Your task to perform on an android device: toggle pop-ups in chrome Image 0: 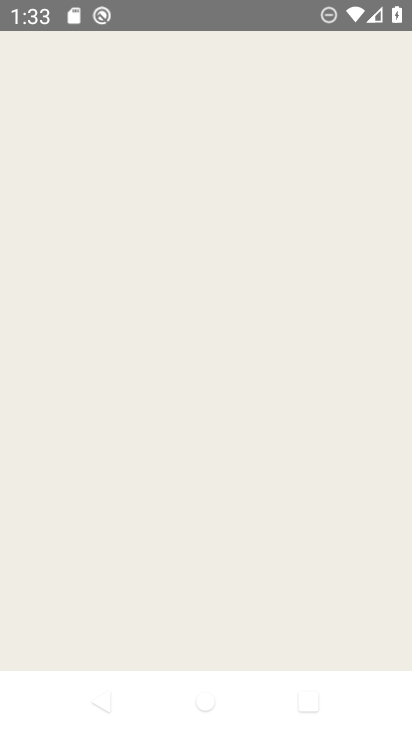
Step 0: press home button
Your task to perform on an android device: toggle pop-ups in chrome Image 1: 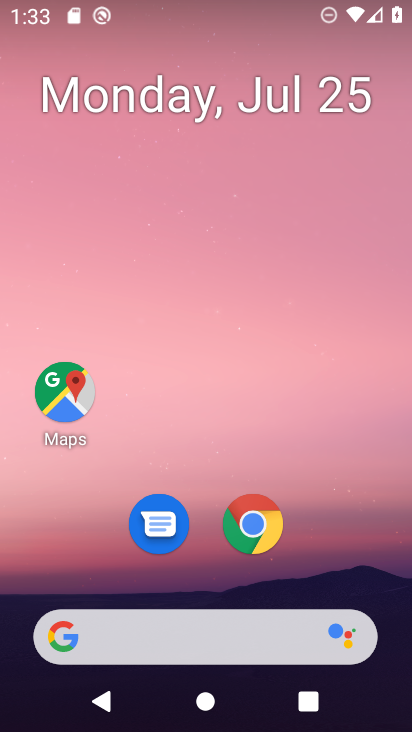
Step 1: click (253, 530)
Your task to perform on an android device: toggle pop-ups in chrome Image 2: 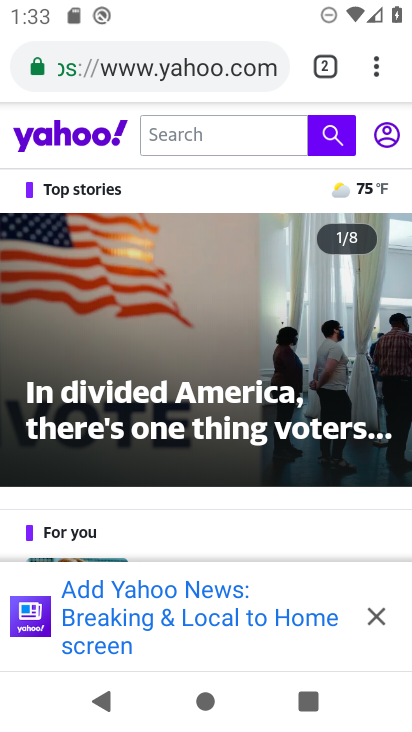
Step 2: drag from (376, 65) to (212, 515)
Your task to perform on an android device: toggle pop-ups in chrome Image 3: 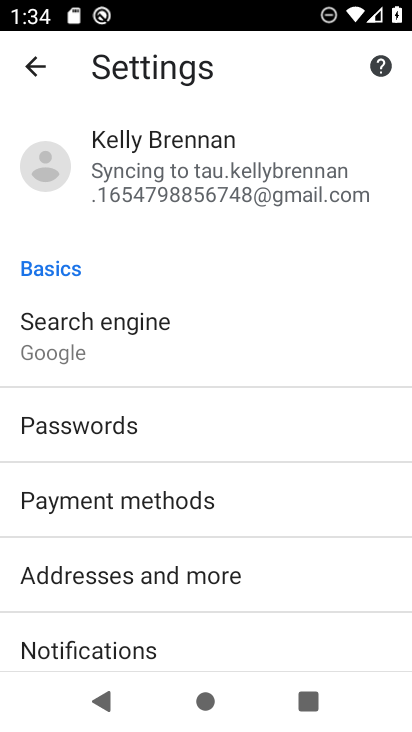
Step 3: drag from (150, 629) to (338, 293)
Your task to perform on an android device: toggle pop-ups in chrome Image 4: 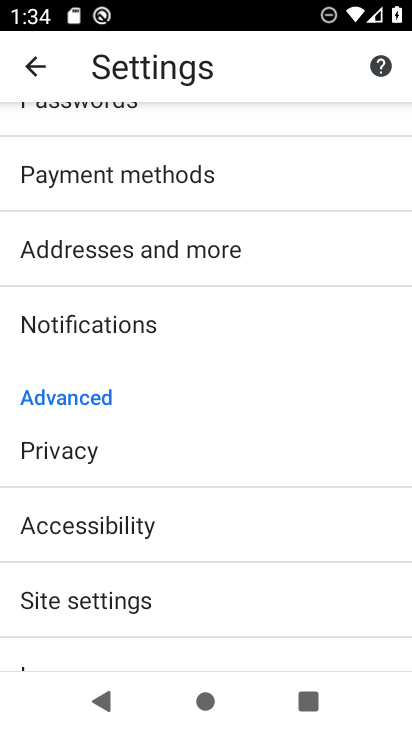
Step 4: click (167, 603)
Your task to perform on an android device: toggle pop-ups in chrome Image 5: 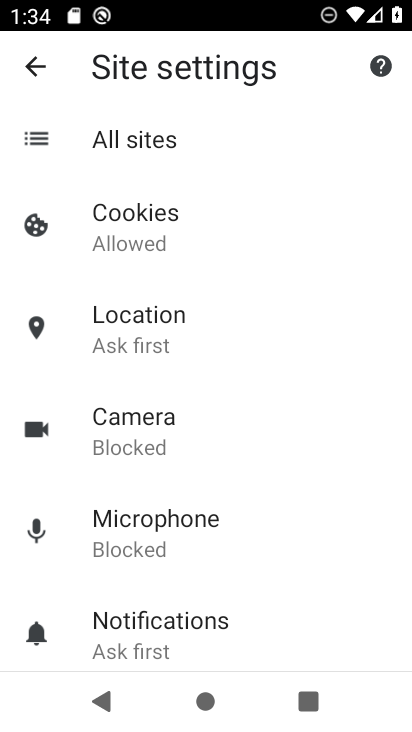
Step 5: drag from (245, 550) to (374, 220)
Your task to perform on an android device: toggle pop-ups in chrome Image 6: 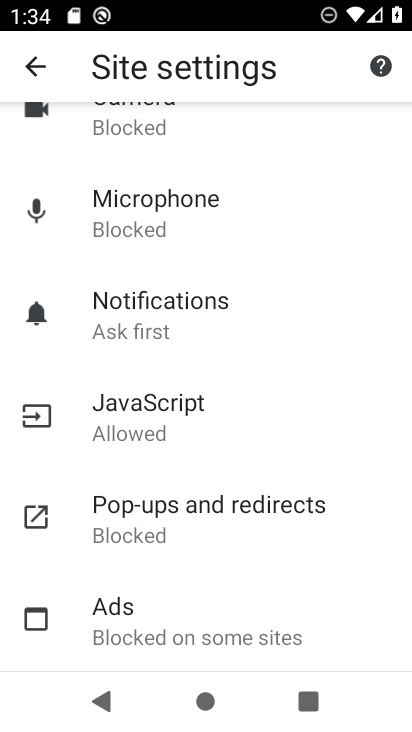
Step 6: click (176, 525)
Your task to perform on an android device: toggle pop-ups in chrome Image 7: 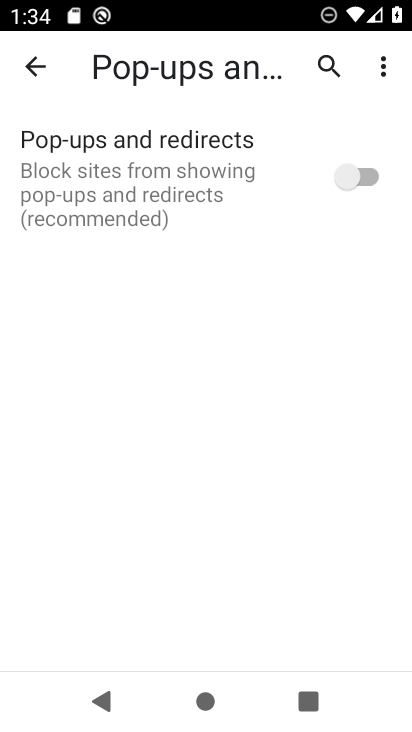
Step 7: click (365, 171)
Your task to perform on an android device: toggle pop-ups in chrome Image 8: 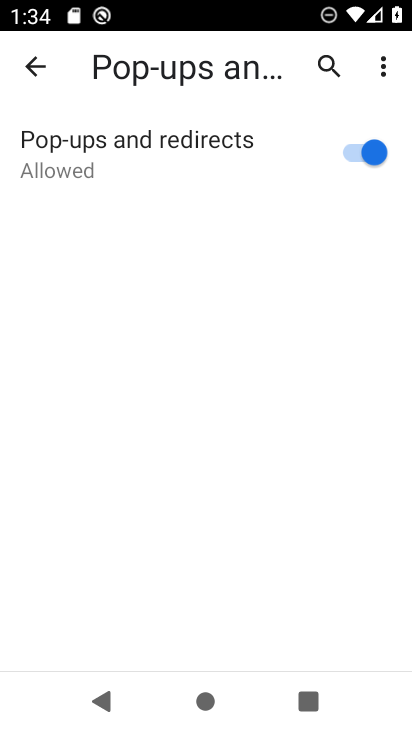
Step 8: task complete